Your task to perform on an android device: Open the phone app and click the voicemail tab. Image 0: 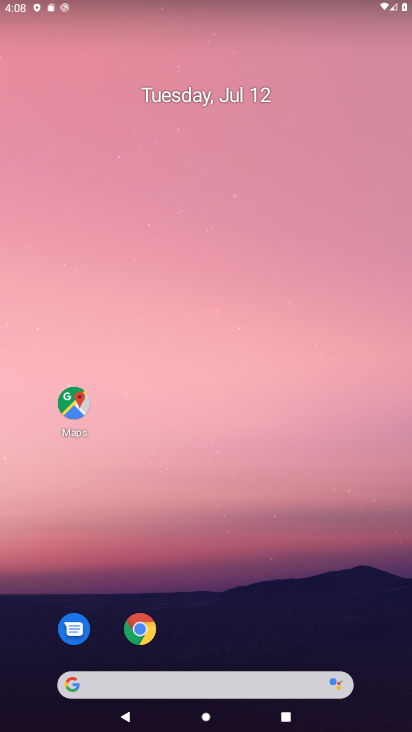
Step 0: press home button
Your task to perform on an android device: Open the phone app and click the voicemail tab. Image 1: 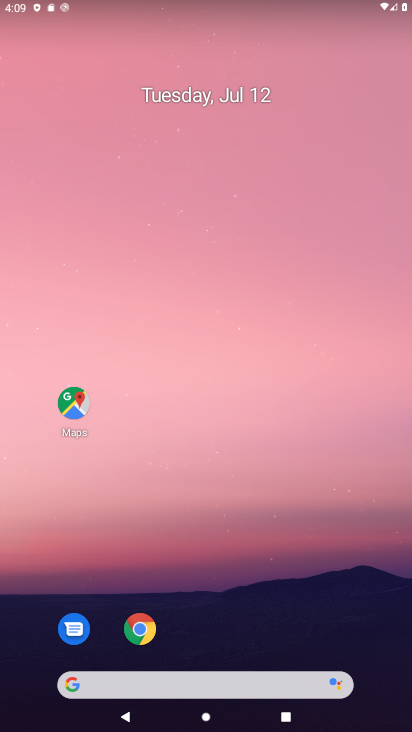
Step 1: drag from (274, 594) to (274, 186)
Your task to perform on an android device: Open the phone app and click the voicemail tab. Image 2: 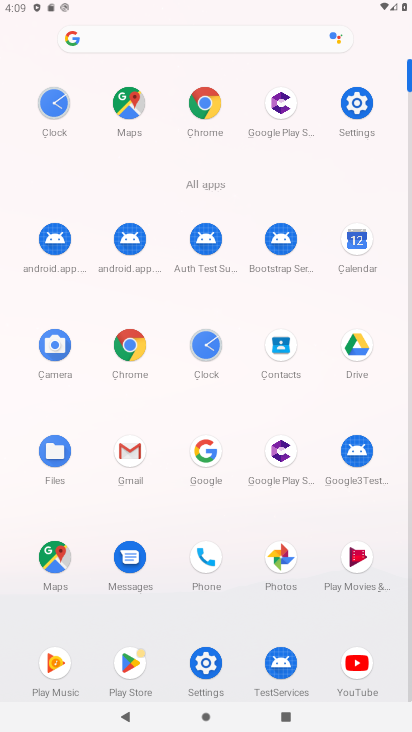
Step 2: click (202, 559)
Your task to perform on an android device: Open the phone app and click the voicemail tab. Image 3: 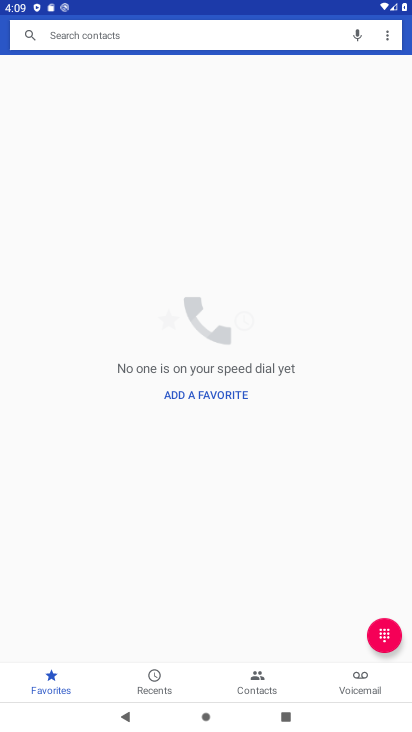
Step 3: click (361, 685)
Your task to perform on an android device: Open the phone app and click the voicemail tab. Image 4: 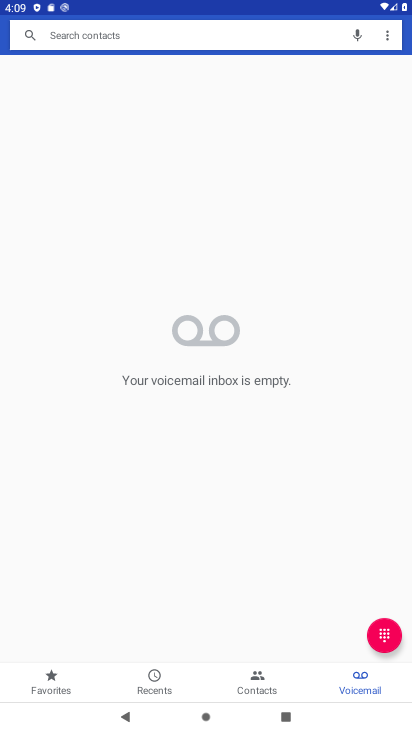
Step 4: task complete